Your task to perform on an android device: open app "Viber Messenger" (install if not already installed) and go to login screen Image 0: 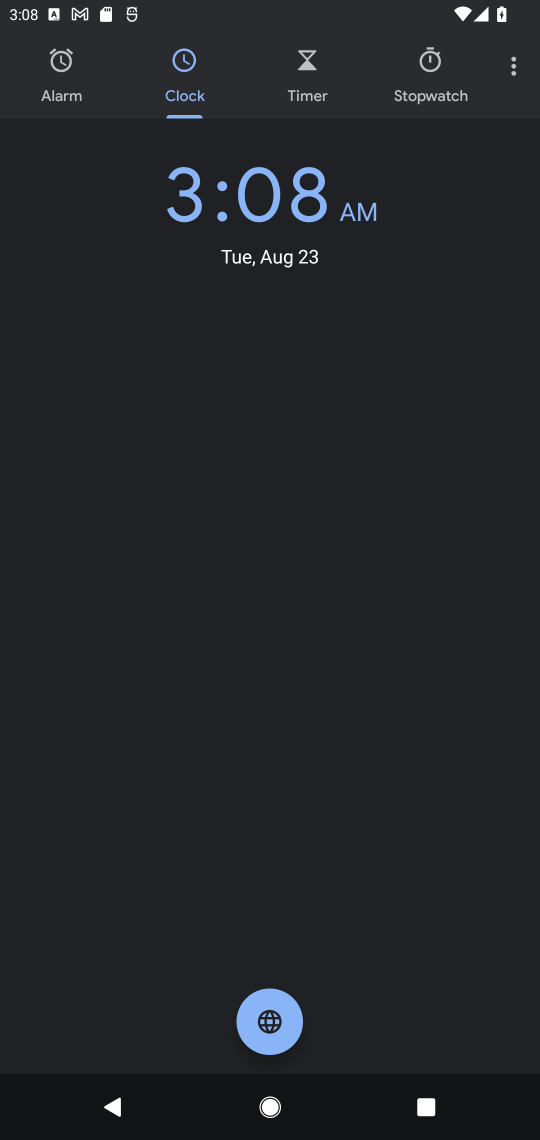
Step 0: press home button
Your task to perform on an android device: open app "Viber Messenger" (install if not already installed) and go to login screen Image 1: 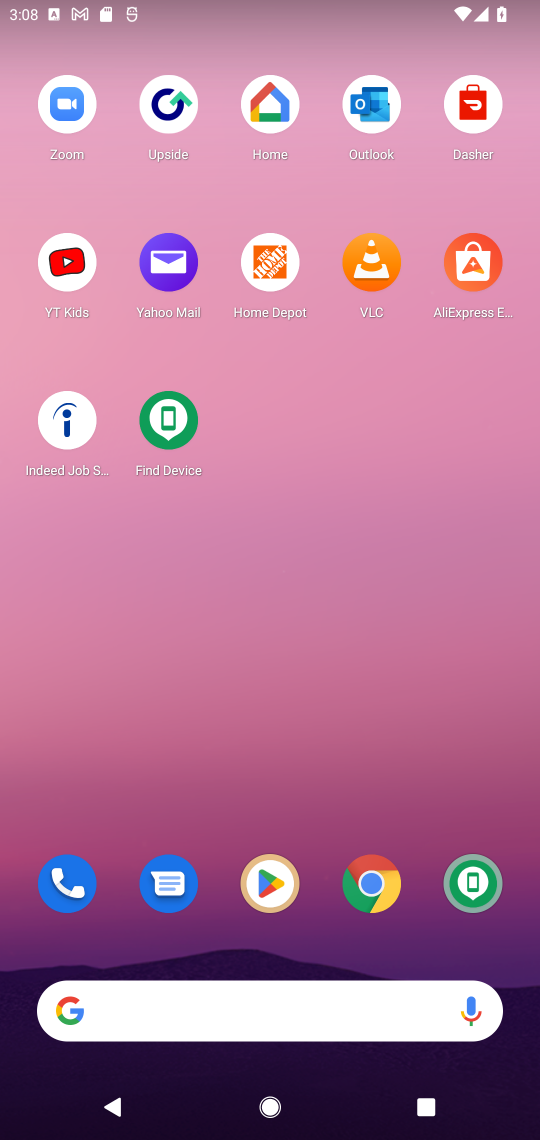
Step 1: drag from (203, 957) to (174, 134)
Your task to perform on an android device: open app "Viber Messenger" (install if not already installed) and go to login screen Image 2: 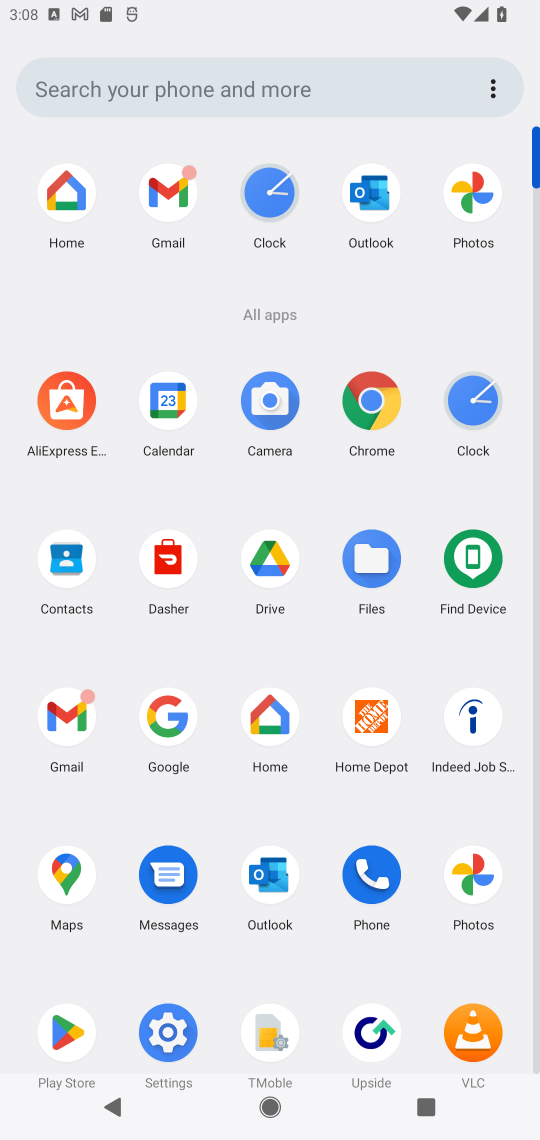
Step 2: click (81, 1013)
Your task to perform on an android device: open app "Viber Messenger" (install if not already installed) and go to login screen Image 3: 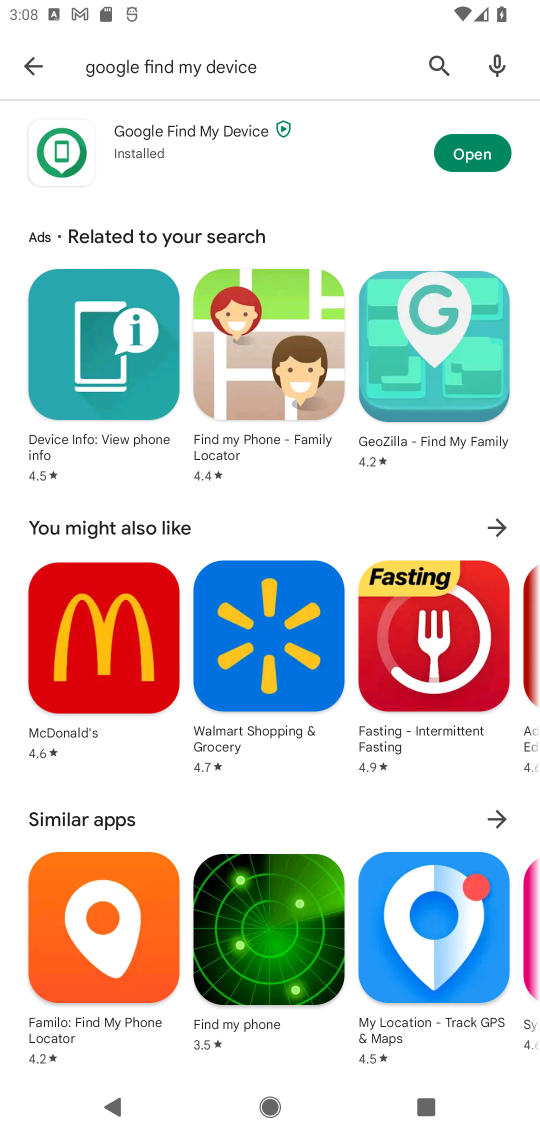
Step 3: click (436, 62)
Your task to perform on an android device: open app "Viber Messenger" (install if not already installed) and go to login screen Image 4: 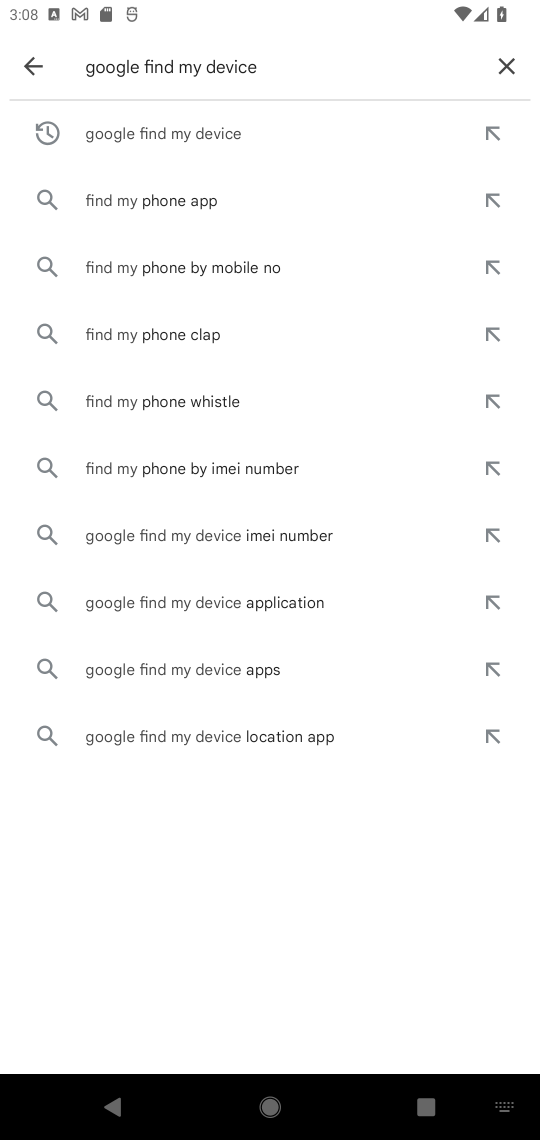
Step 4: click (499, 73)
Your task to perform on an android device: open app "Viber Messenger" (install if not already installed) and go to login screen Image 5: 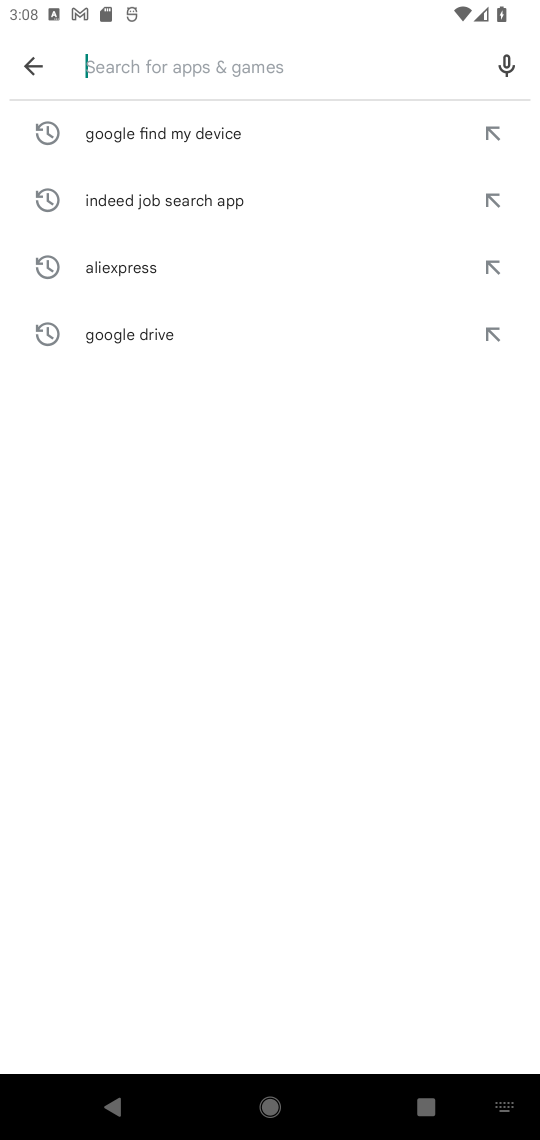
Step 5: click (187, 62)
Your task to perform on an android device: open app "Viber Messenger" (install if not already installed) and go to login screen Image 6: 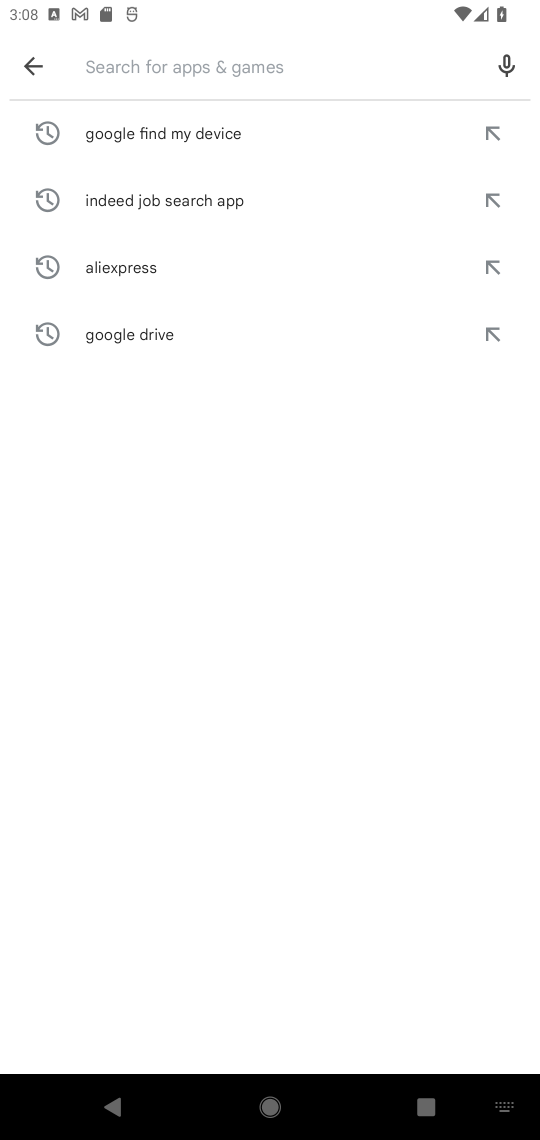
Step 6: type "Viber Messenger"
Your task to perform on an android device: open app "Viber Messenger" (install if not already installed) and go to login screen Image 7: 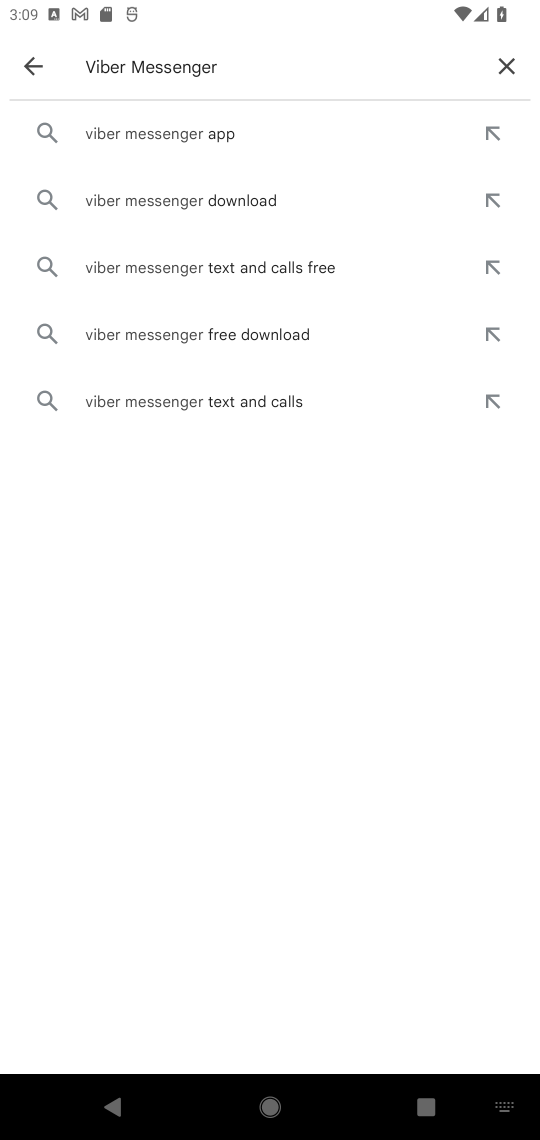
Step 7: click (86, 142)
Your task to perform on an android device: open app "Viber Messenger" (install if not already installed) and go to login screen Image 8: 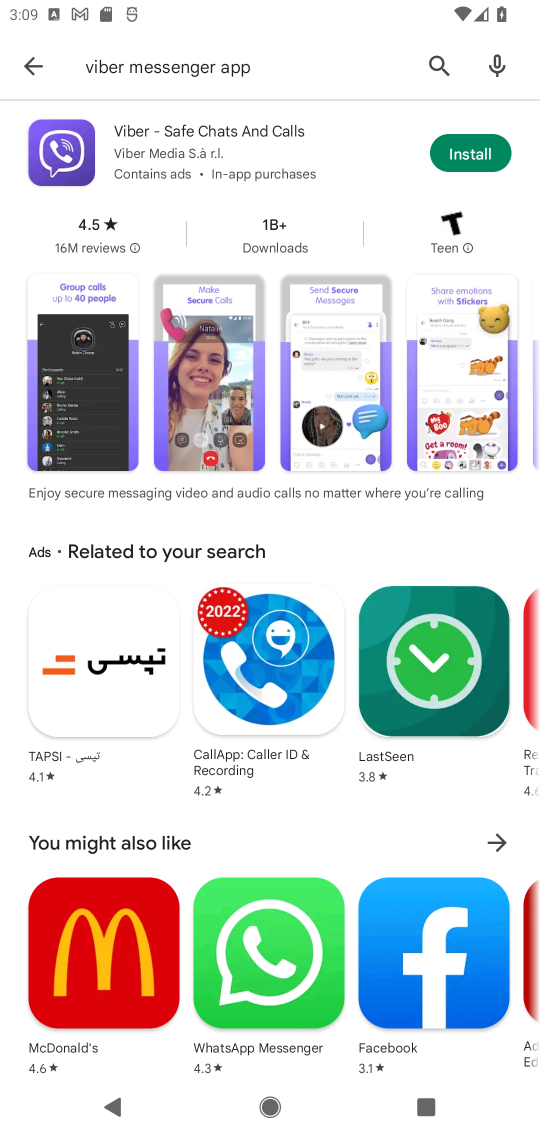
Step 8: click (457, 151)
Your task to perform on an android device: open app "Viber Messenger" (install if not already installed) and go to login screen Image 9: 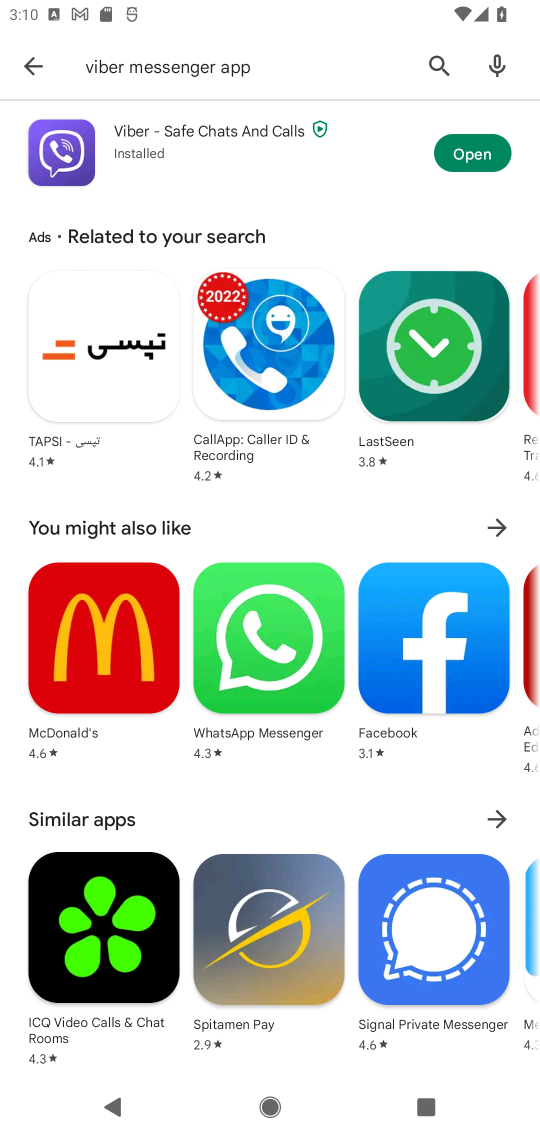
Step 9: click (466, 146)
Your task to perform on an android device: open app "Viber Messenger" (install if not already installed) and go to login screen Image 10: 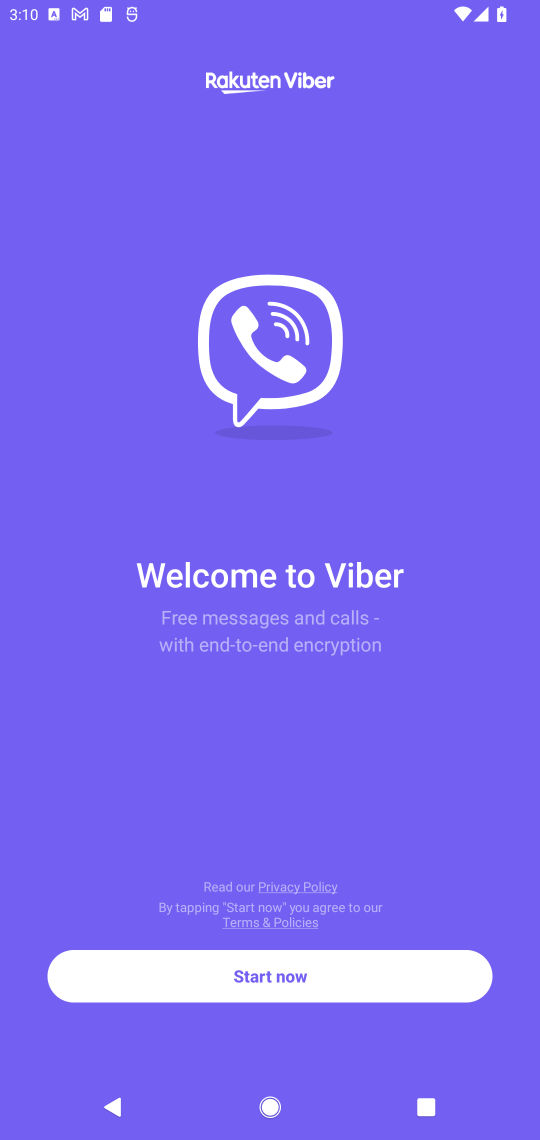
Step 10: task complete